Your task to perform on an android device: Open the Play Movies app and select the watchlist tab. Image 0: 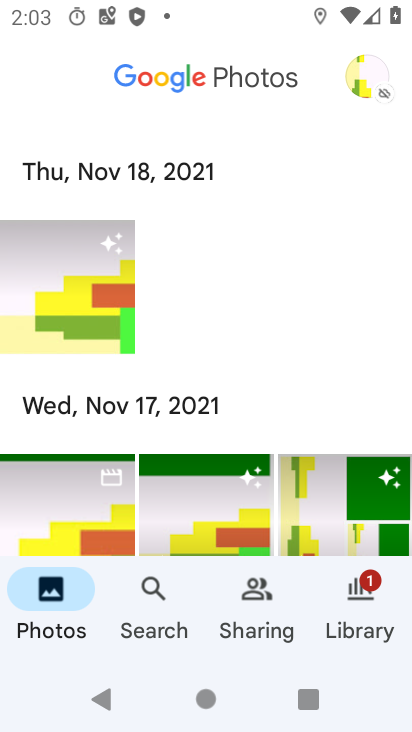
Step 0: press home button
Your task to perform on an android device: Open the Play Movies app and select the watchlist tab. Image 1: 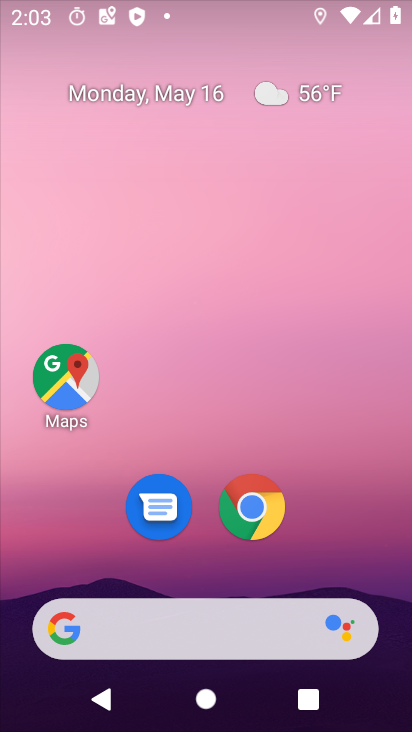
Step 1: drag from (207, 548) to (245, 55)
Your task to perform on an android device: Open the Play Movies app and select the watchlist tab. Image 2: 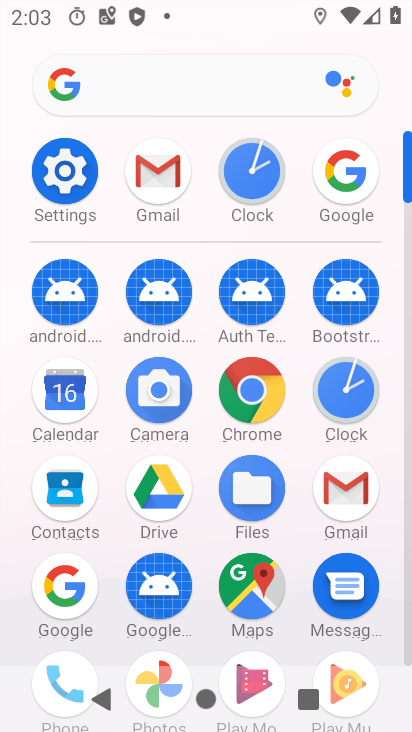
Step 2: drag from (204, 573) to (245, 201)
Your task to perform on an android device: Open the Play Movies app and select the watchlist tab. Image 3: 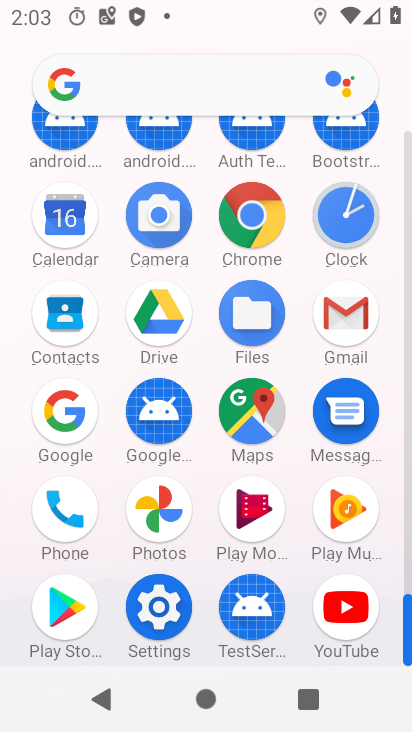
Step 3: click (256, 523)
Your task to perform on an android device: Open the Play Movies app and select the watchlist tab. Image 4: 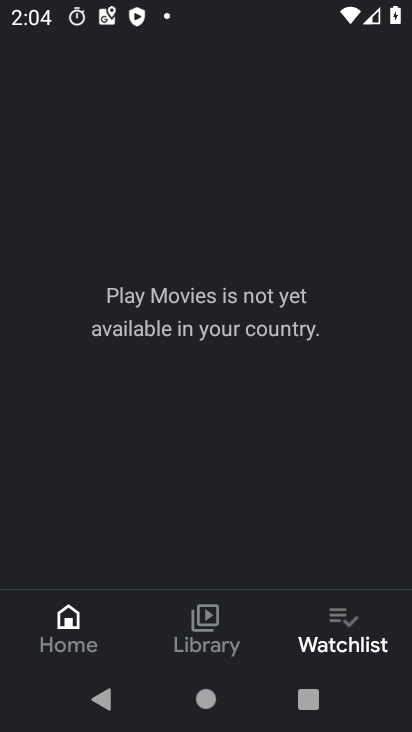
Step 4: task complete